Your task to perform on an android device: turn on priority inbox in the gmail app Image 0: 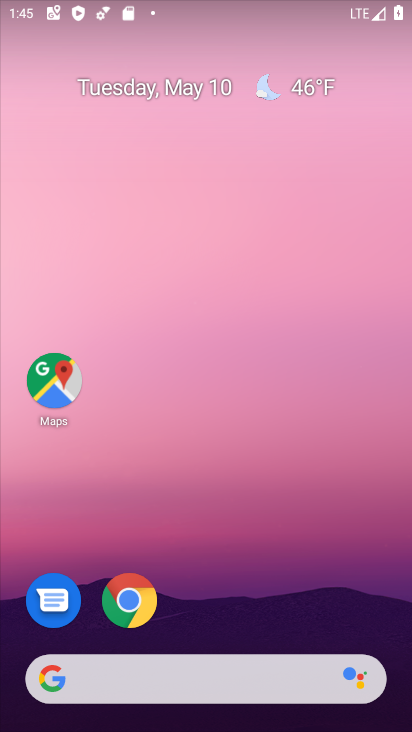
Step 0: drag from (209, 664) to (312, 280)
Your task to perform on an android device: turn on priority inbox in the gmail app Image 1: 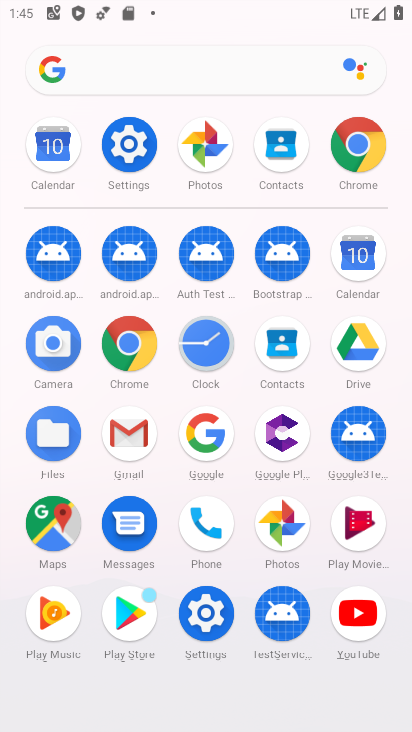
Step 1: click (136, 438)
Your task to perform on an android device: turn on priority inbox in the gmail app Image 2: 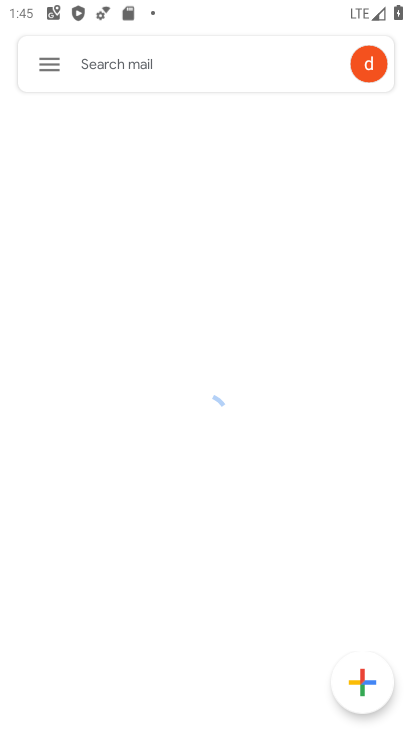
Step 2: click (43, 62)
Your task to perform on an android device: turn on priority inbox in the gmail app Image 3: 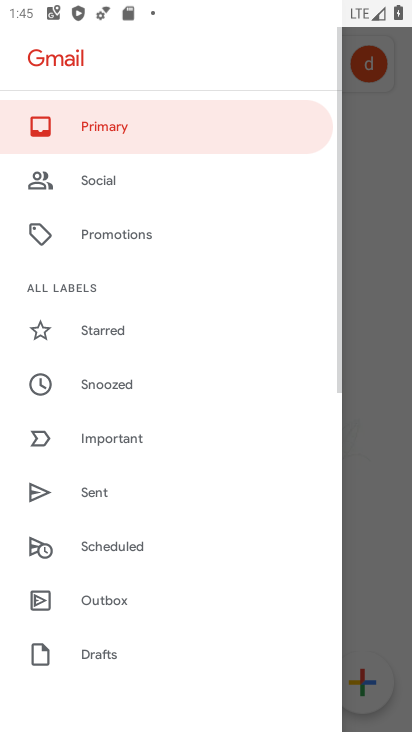
Step 3: drag from (175, 640) to (254, 234)
Your task to perform on an android device: turn on priority inbox in the gmail app Image 4: 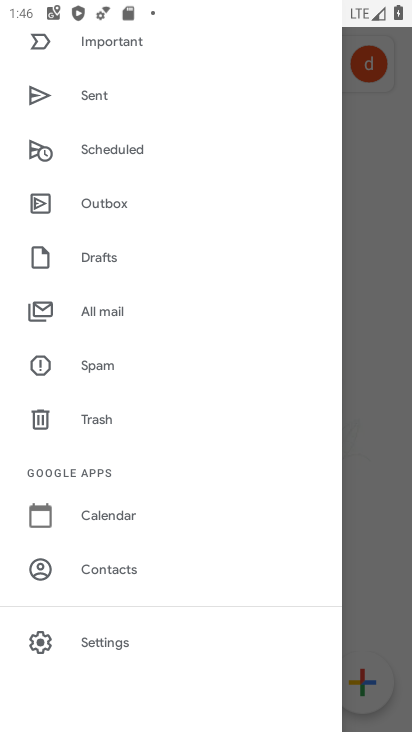
Step 4: click (117, 648)
Your task to perform on an android device: turn on priority inbox in the gmail app Image 5: 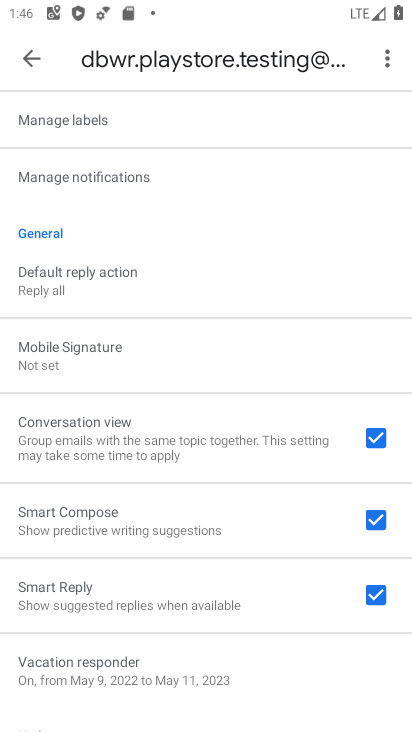
Step 5: drag from (215, 229) to (188, 558)
Your task to perform on an android device: turn on priority inbox in the gmail app Image 6: 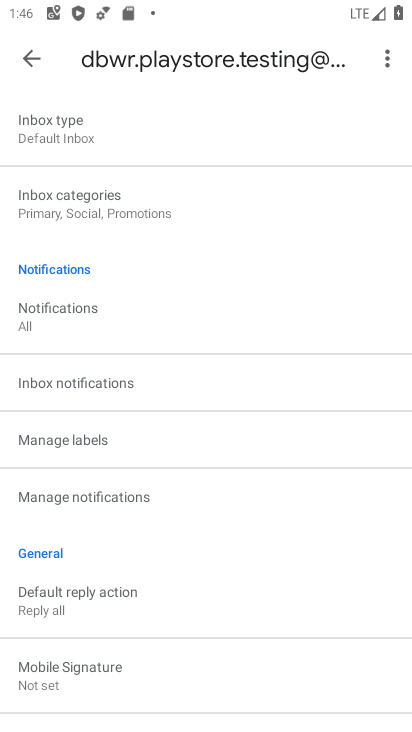
Step 6: click (46, 140)
Your task to perform on an android device: turn on priority inbox in the gmail app Image 7: 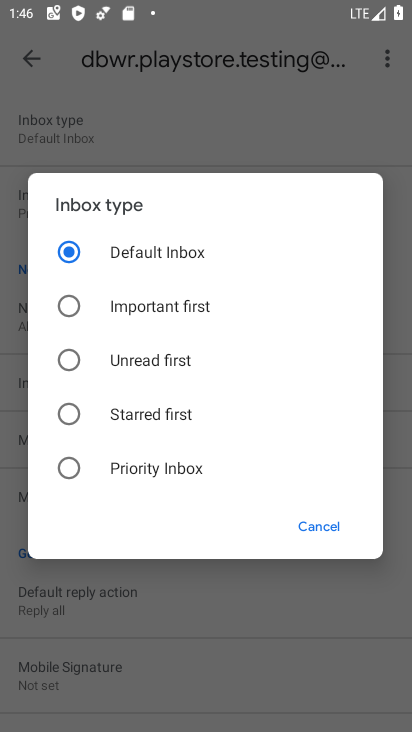
Step 7: click (67, 470)
Your task to perform on an android device: turn on priority inbox in the gmail app Image 8: 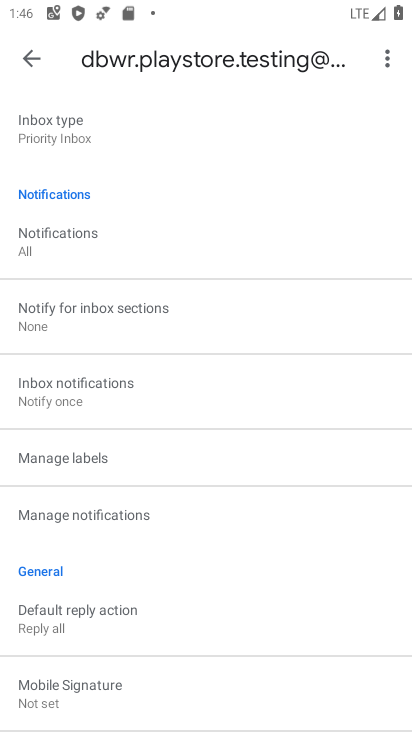
Step 8: task complete